Your task to perform on an android device: What is the recent news? Image 0: 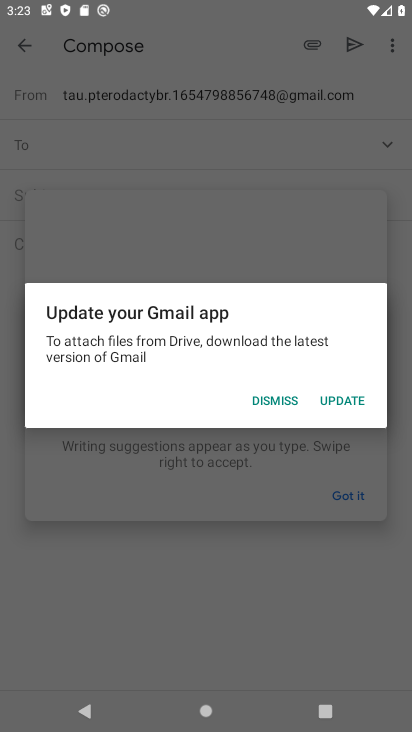
Step 0: press home button
Your task to perform on an android device: What is the recent news? Image 1: 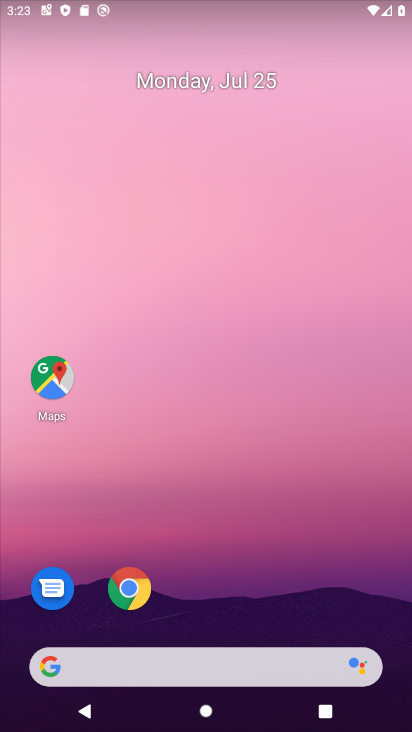
Step 1: drag from (322, 600) to (315, 140)
Your task to perform on an android device: What is the recent news? Image 2: 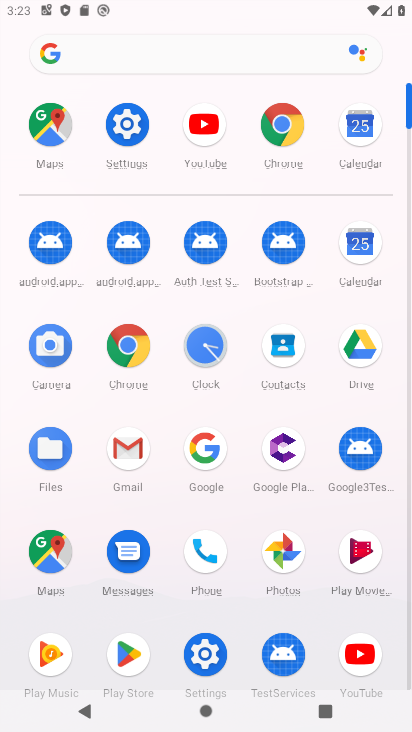
Step 2: click (283, 125)
Your task to perform on an android device: What is the recent news? Image 3: 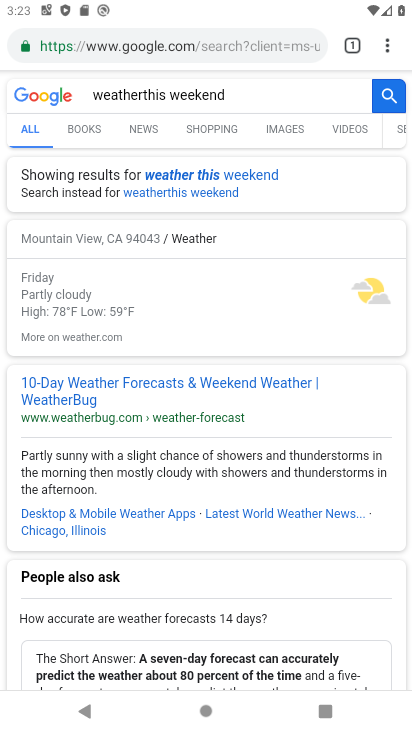
Step 3: click (202, 44)
Your task to perform on an android device: What is the recent news? Image 4: 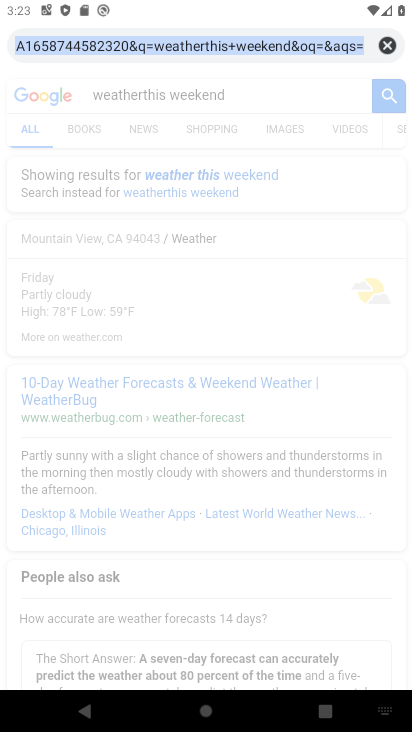
Step 4: type "news"
Your task to perform on an android device: What is the recent news? Image 5: 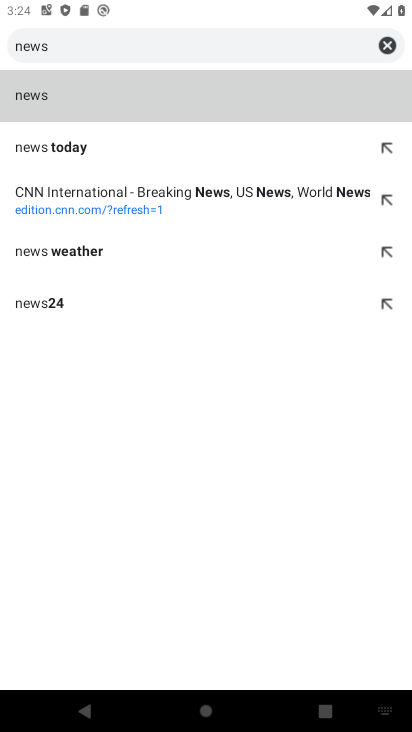
Step 5: click (79, 93)
Your task to perform on an android device: What is the recent news? Image 6: 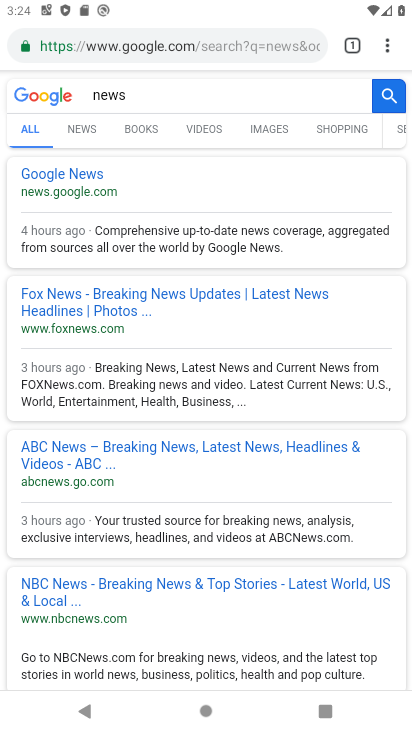
Step 6: click (66, 173)
Your task to perform on an android device: What is the recent news? Image 7: 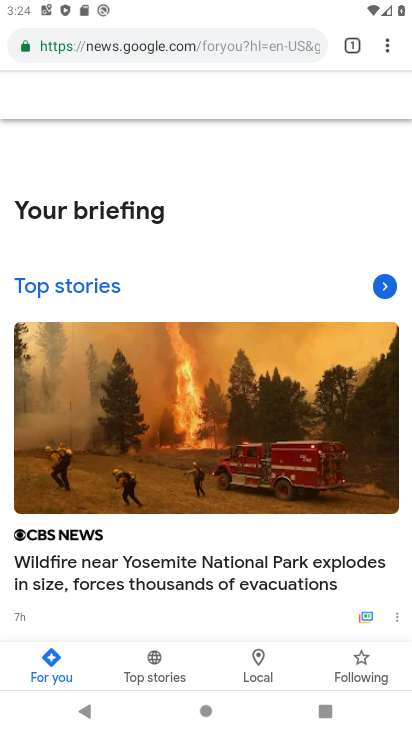
Step 7: task complete